Your task to perform on an android device: turn on javascript in the chrome app Image 0: 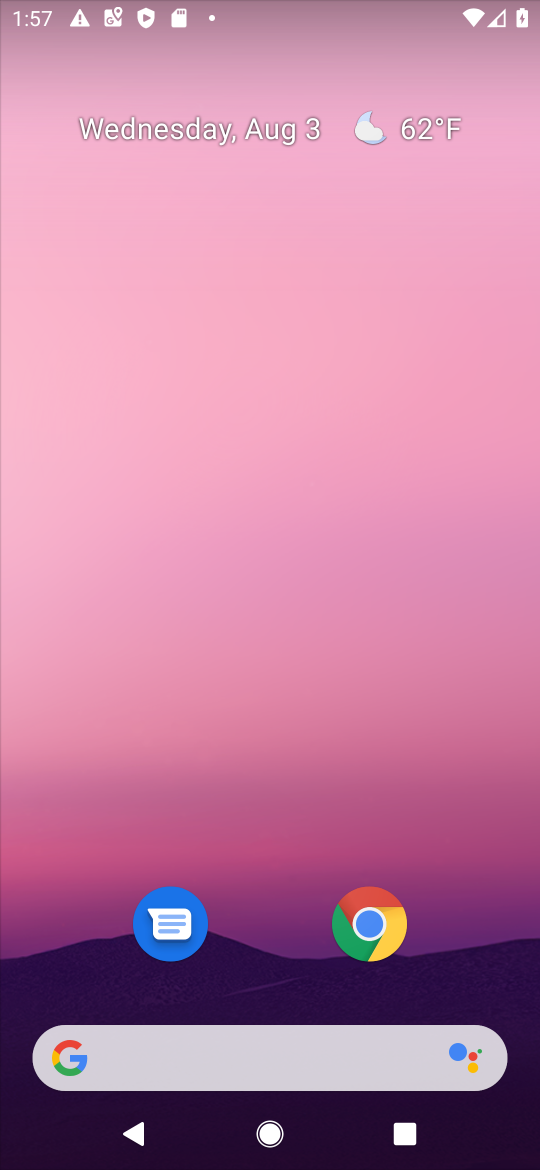
Step 0: press home button
Your task to perform on an android device: turn on javascript in the chrome app Image 1: 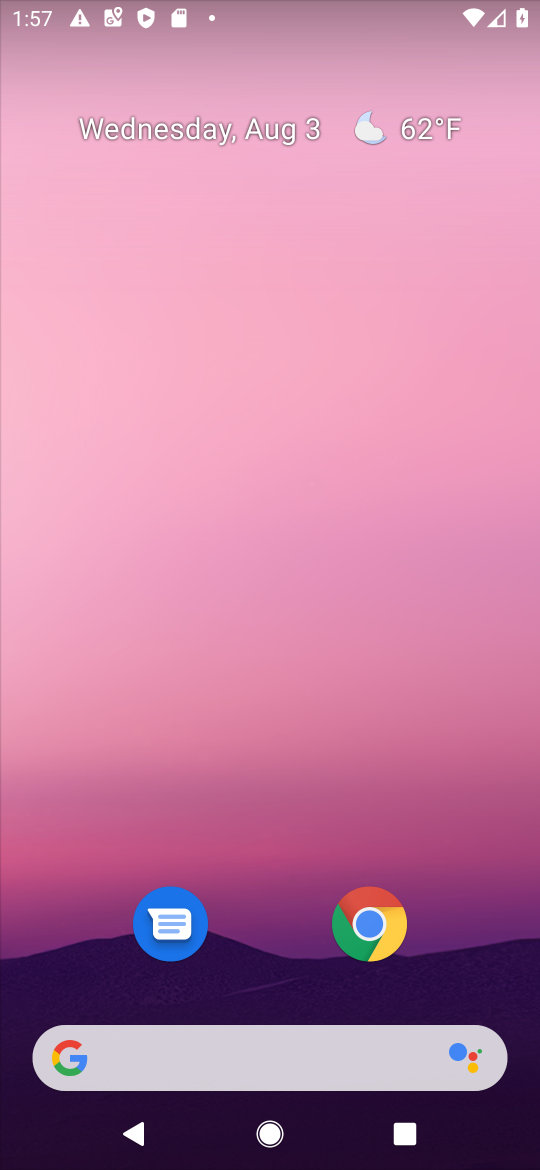
Step 1: drag from (276, 984) to (338, 127)
Your task to perform on an android device: turn on javascript in the chrome app Image 2: 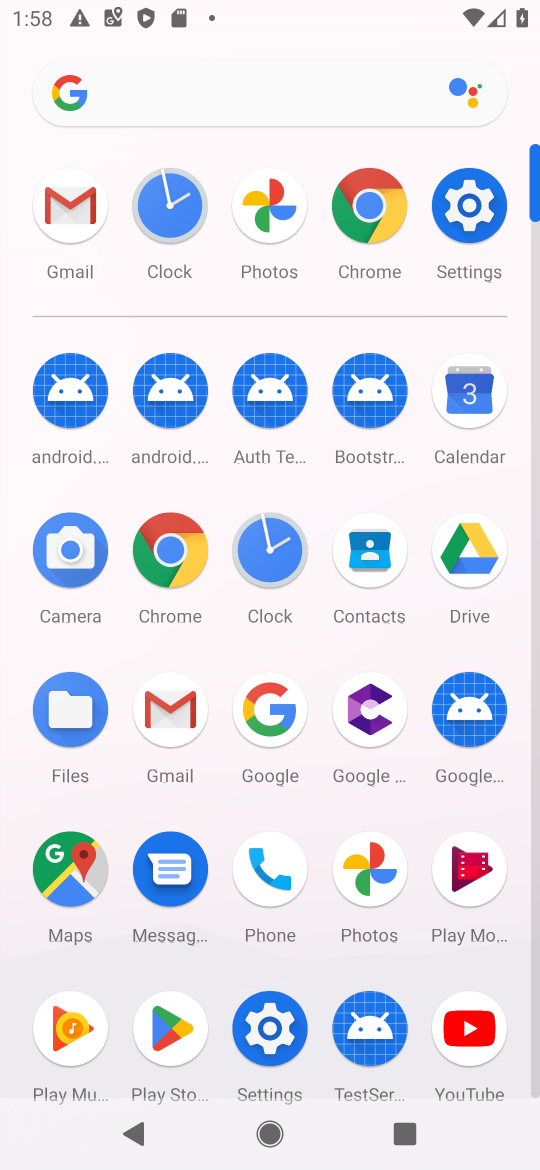
Step 2: click (365, 197)
Your task to perform on an android device: turn on javascript in the chrome app Image 3: 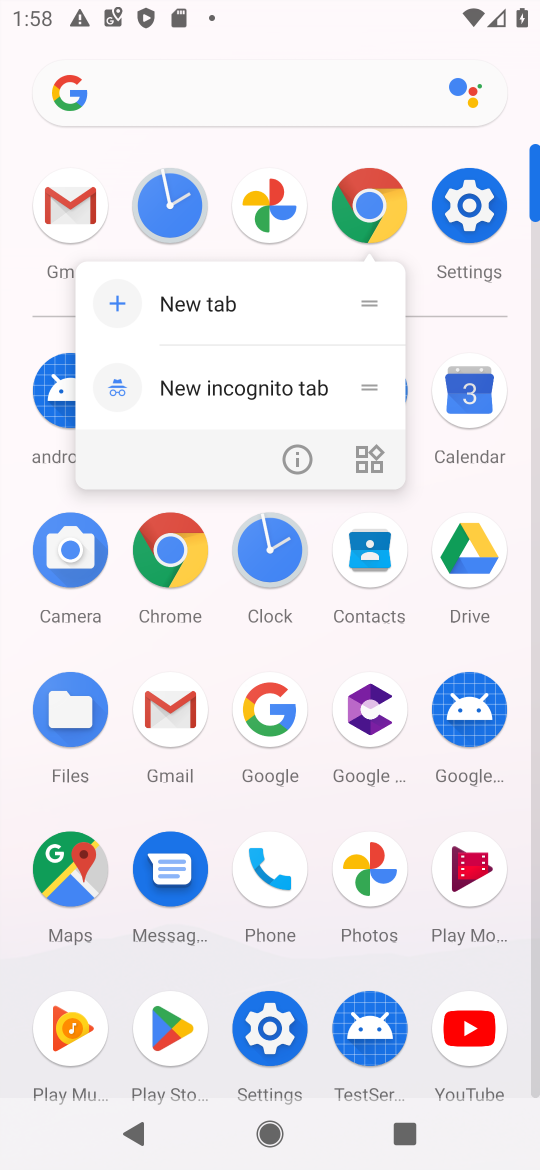
Step 3: click (365, 190)
Your task to perform on an android device: turn on javascript in the chrome app Image 4: 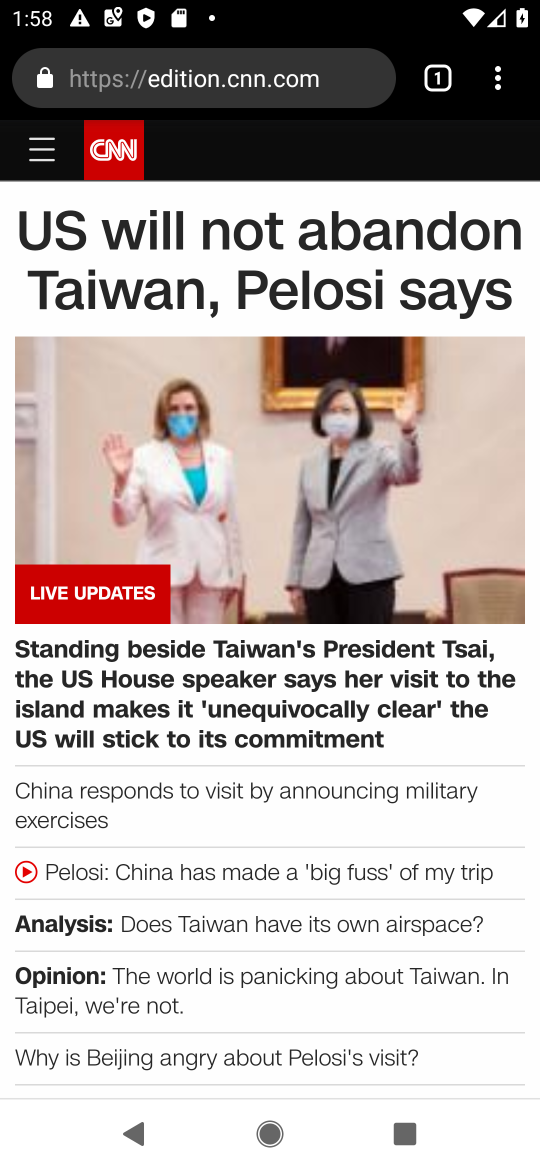
Step 4: click (484, 68)
Your task to perform on an android device: turn on javascript in the chrome app Image 5: 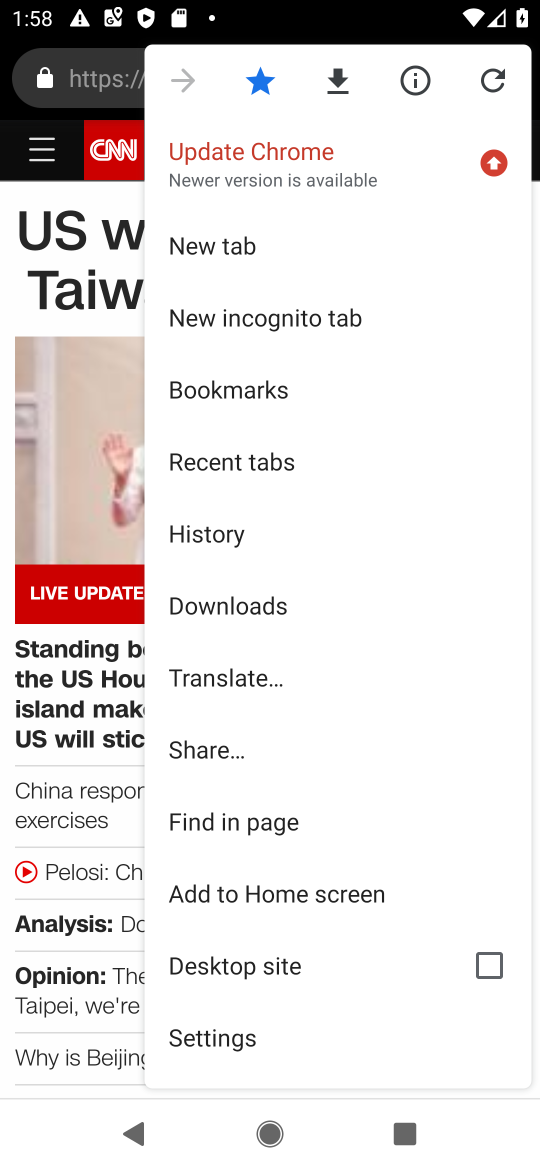
Step 5: click (261, 1031)
Your task to perform on an android device: turn on javascript in the chrome app Image 6: 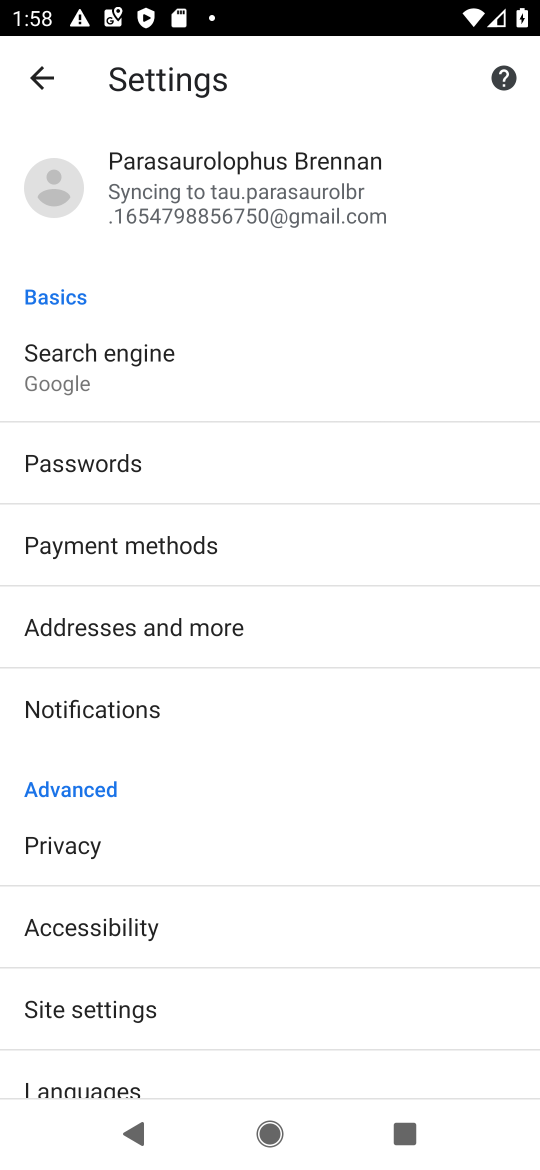
Step 6: drag from (261, 990) to (324, 155)
Your task to perform on an android device: turn on javascript in the chrome app Image 7: 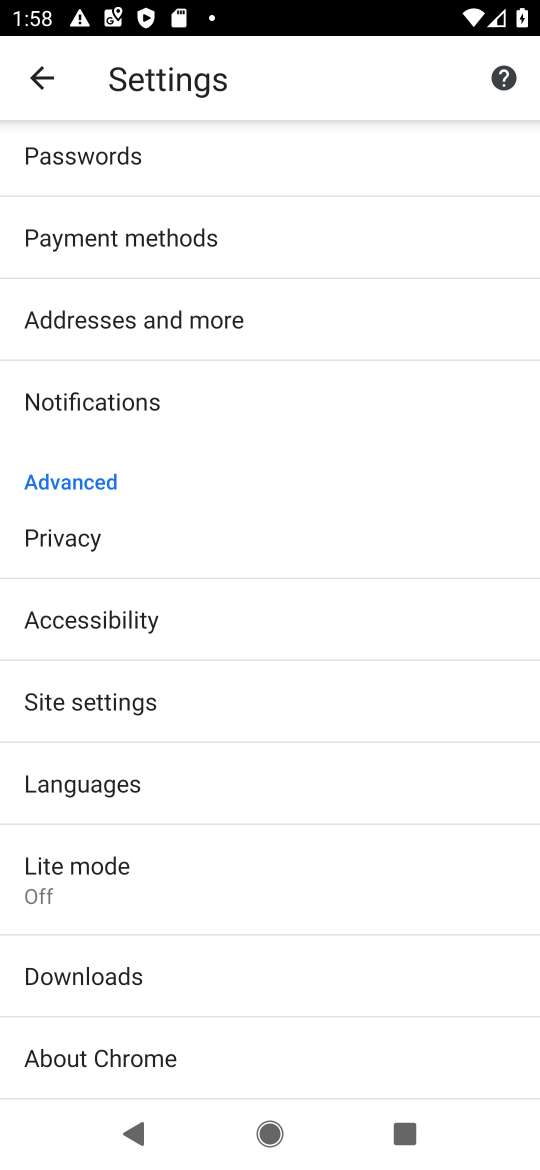
Step 7: click (159, 713)
Your task to perform on an android device: turn on javascript in the chrome app Image 8: 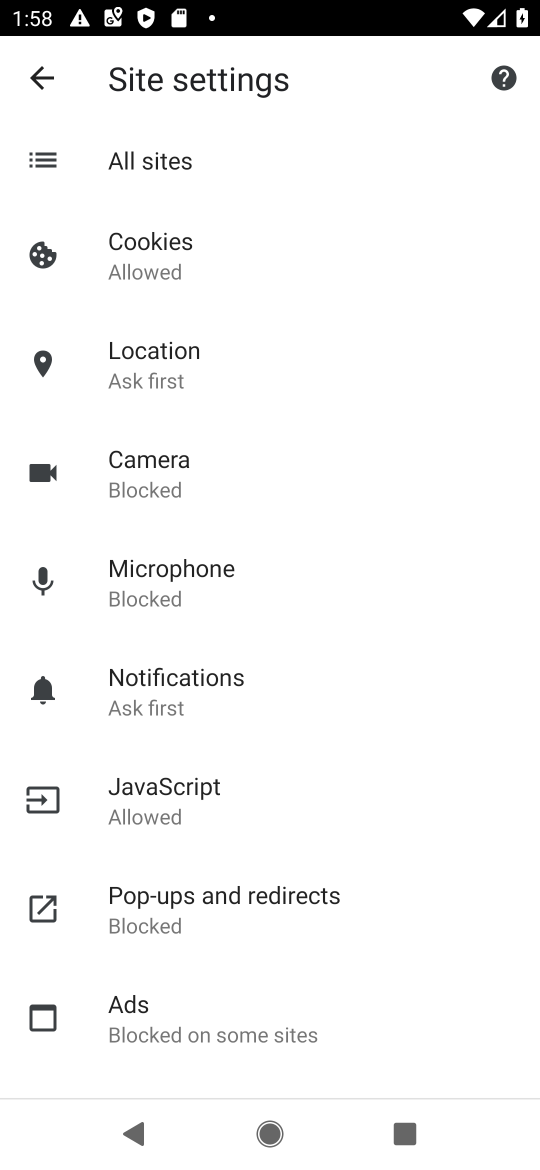
Step 8: click (204, 803)
Your task to perform on an android device: turn on javascript in the chrome app Image 9: 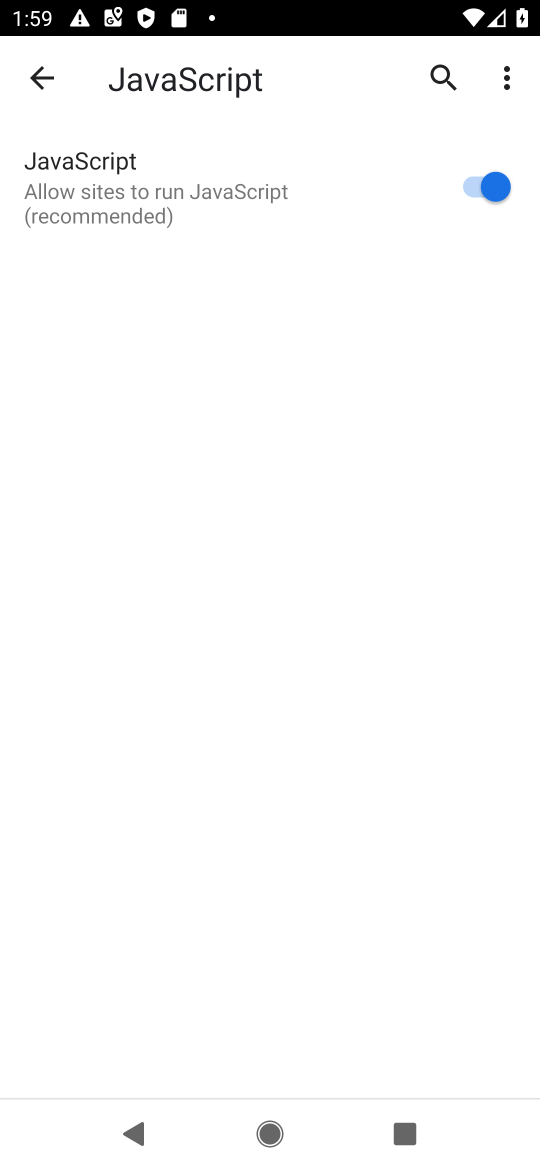
Step 9: task complete